Your task to perform on an android device: Open the calendar and show me this week's events? Image 0: 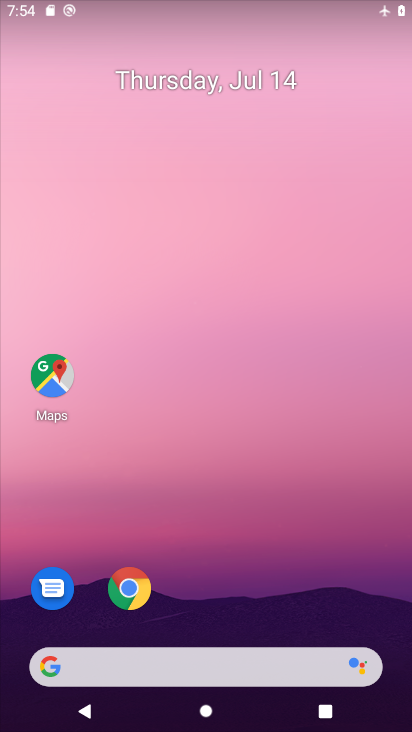
Step 0: drag from (190, 602) to (119, 98)
Your task to perform on an android device: Open the calendar and show me this week's events? Image 1: 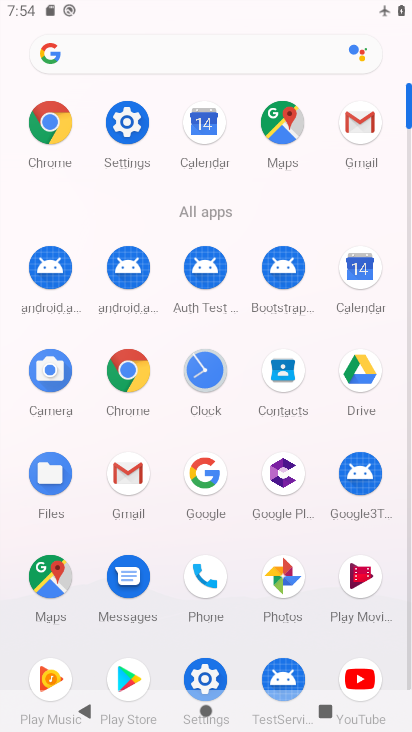
Step 1: click (199, 123)
Your task to perform on an android device: Open the calendar and show me this week's events? Image 2: 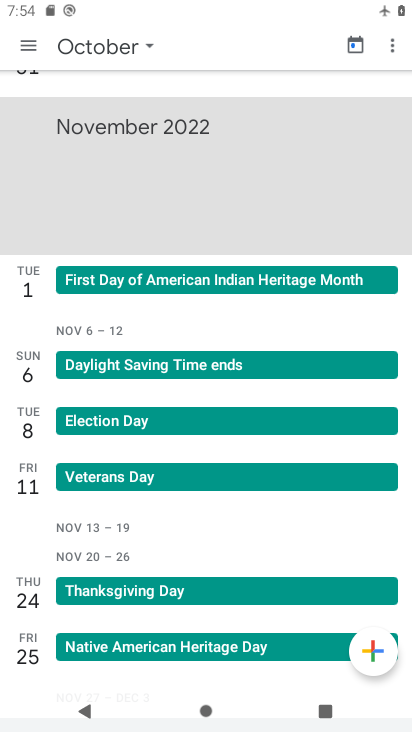
Step 2: click (30, 36)
Your task to perform on an android device: Open the calendar and show me this week's events? Image 3: 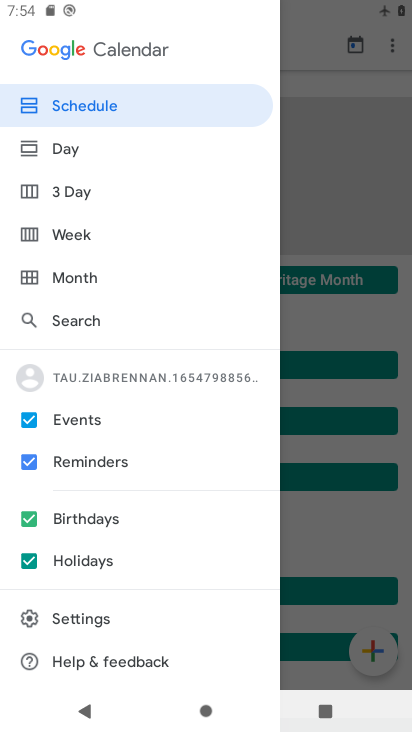
Step 3: click (37, 228)
Your task to perform on an android device: Open the calendar and show me this week's events? Image 4: 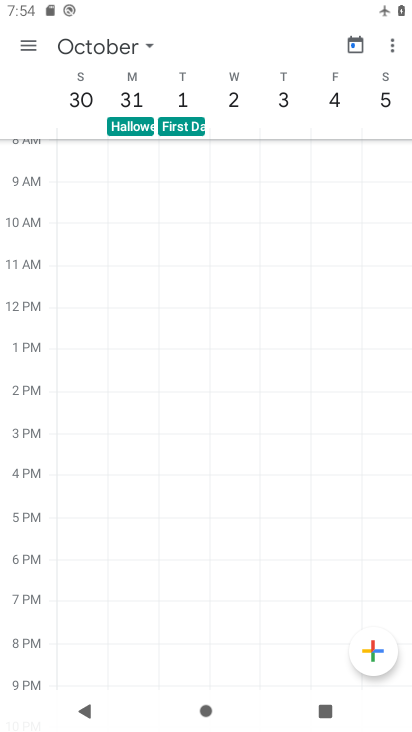
Step 4: click (357, 52)
Your task to perform on an android device: Open the calendar and show me this week's events? Image 5: 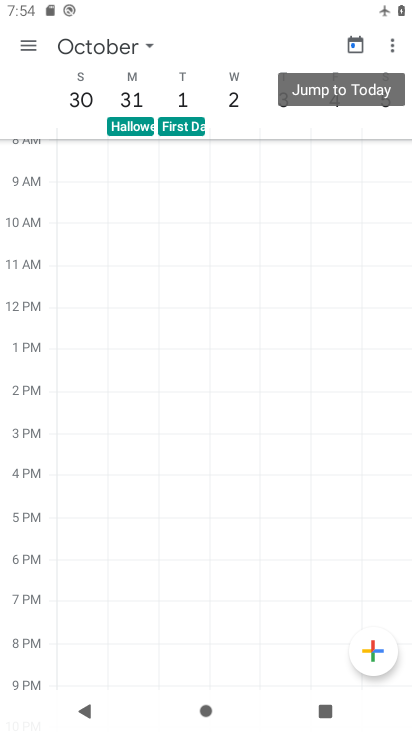
Step 5: click (357, 52)
Your task to perform on an android device: Open the calendar and show me this week's events? Image 6: 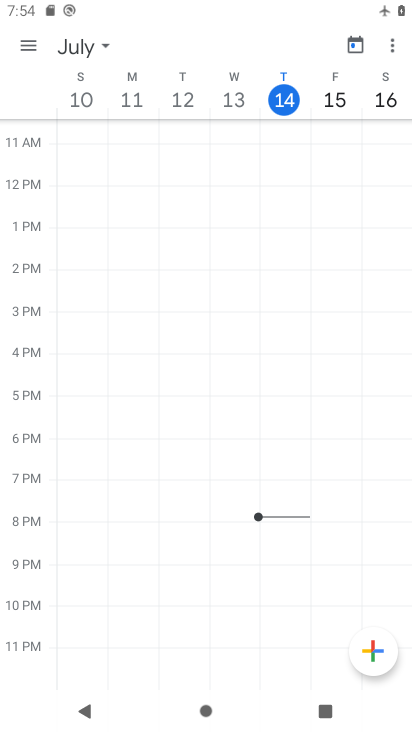
Step 6: click (332, 89)
Your task to perform on an android device: Open the calendar and show me this week's events? Image 7: 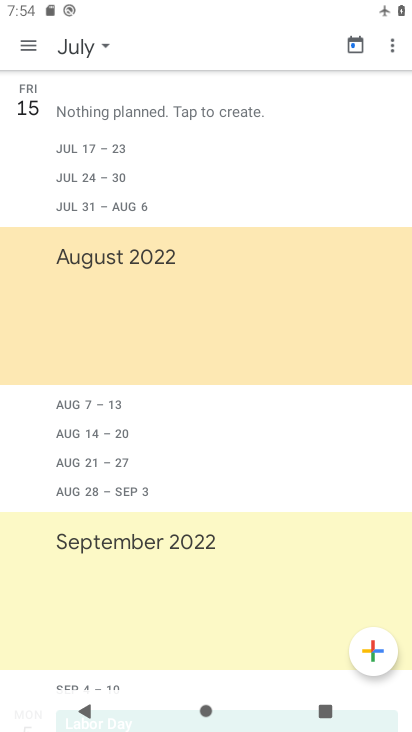
Step 7: click (104, 50)
Your task to perform on an android device: Open the calendar and show me this week's events? Image 8: 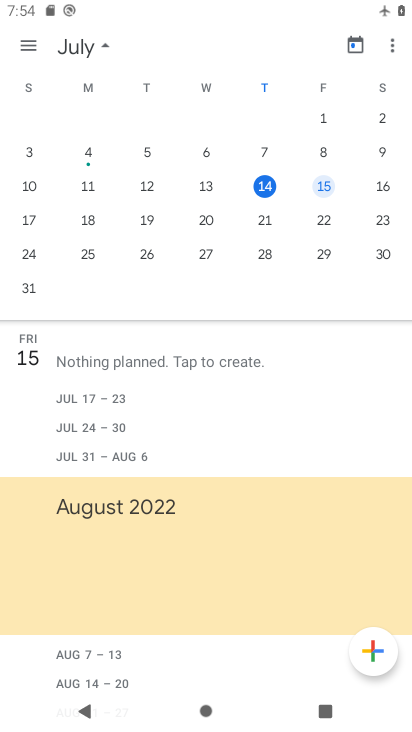
Step 8: click (383, 183)
Your task to perform on an android device: Open the calendar and show me this week's events? Image 9: 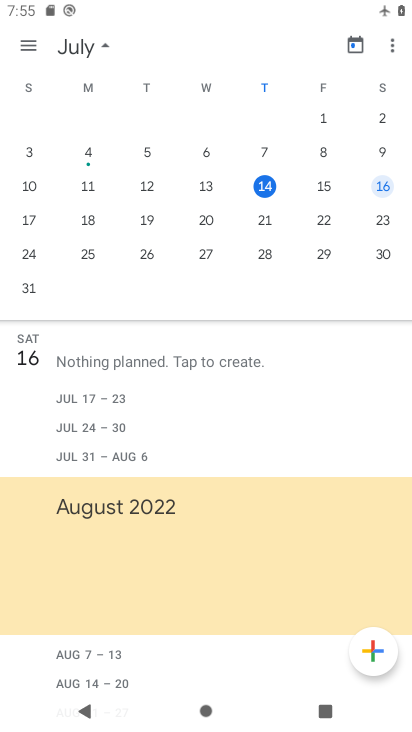
Step 9: task complete